Your task to perform on an android device: delete browsing data in the chrome app Image 0: 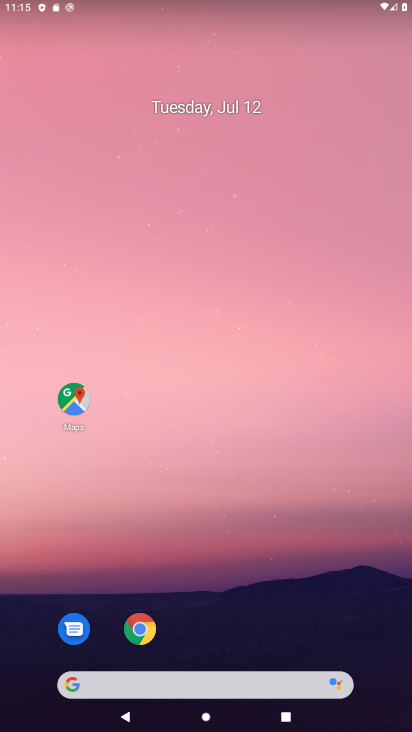
Step 0: click (136, 630)
Your task to perform on an android device: delete browsing data in the chrome app Image 1: 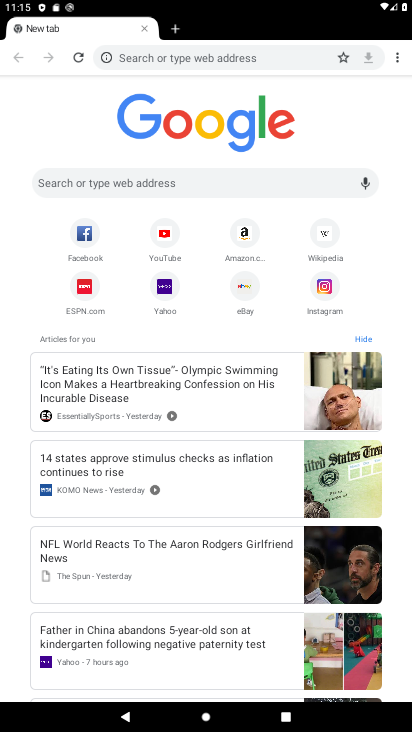
Step 1: click (395, 53)
Your task to perform on an android device: delete browsing data in the chrome app Image 2: 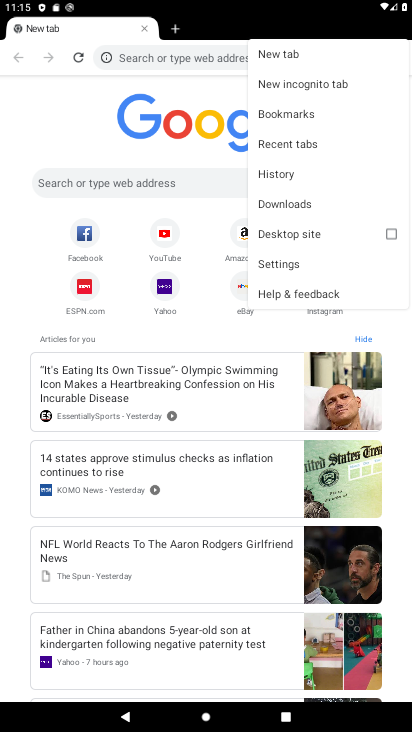
Step 2: click (275, 176)
Your task to perform on an android device: delete browsing data in the chrome app Image 3: 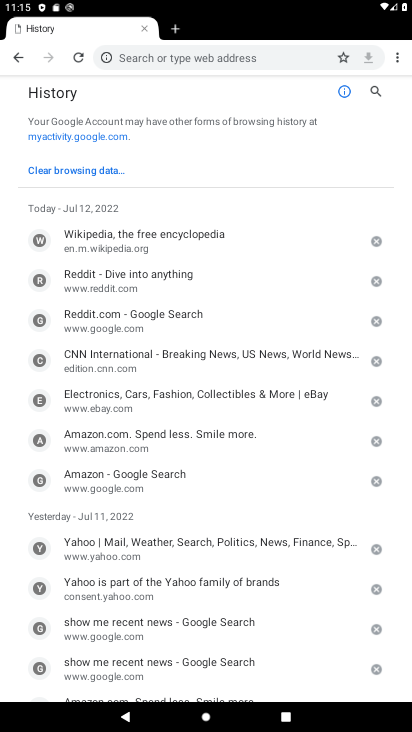
Step 3: click (88, 164)
Your task to perform on an android device: delete browsing data in the chrome app Image 4: 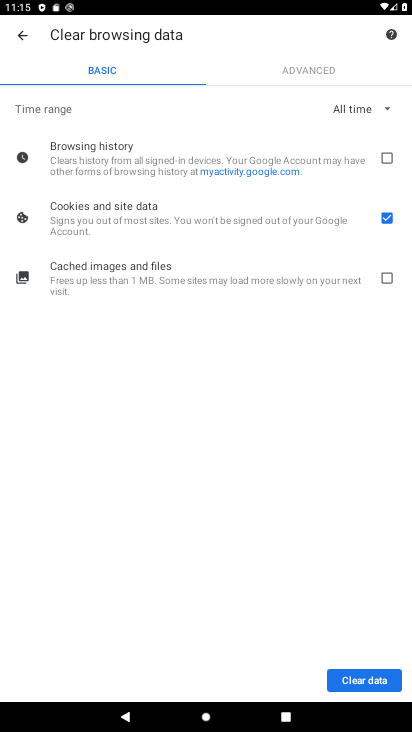
Step 4: click (387, 276)
Your task to perform on an android device: delete browsing data in the chrome app Image 5: 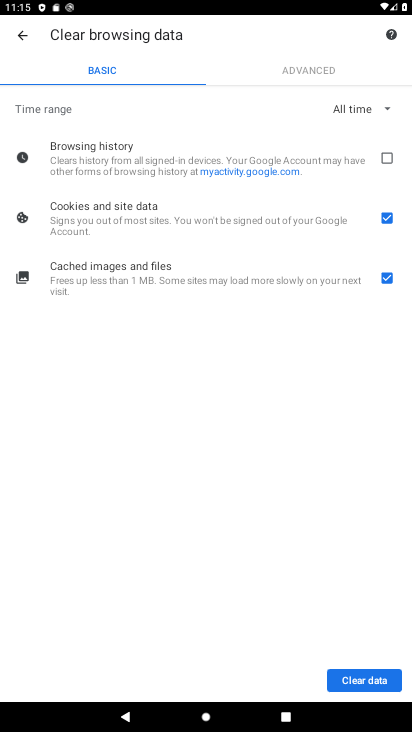
Step 5: click (384, 161)
Your task to perform on an android device: delete browsing data in the chrome app Image 6: 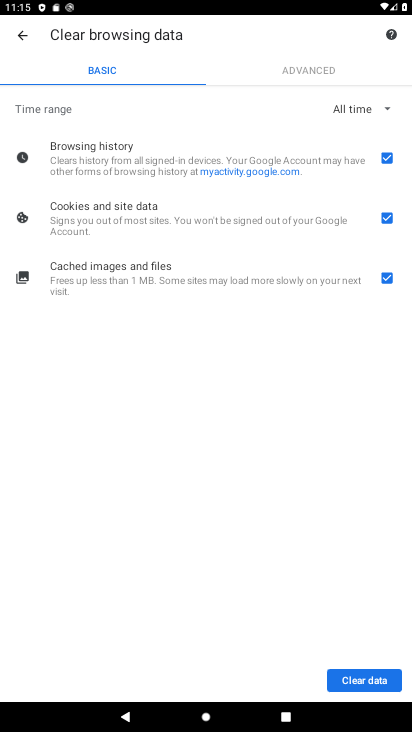
Step 6: click (363, 685)
Your task to perform on an android device: delete browsing data in the chrome app Image 7: 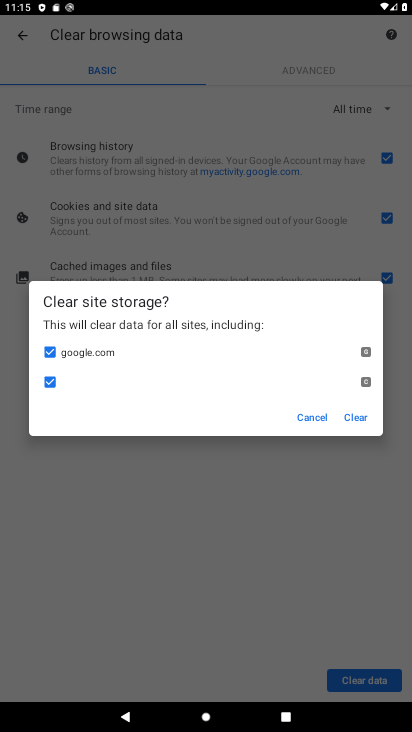
Step 7: click (347, 421)
Your task to perform on an android device: delete browsing data in the chrome app Image 8: 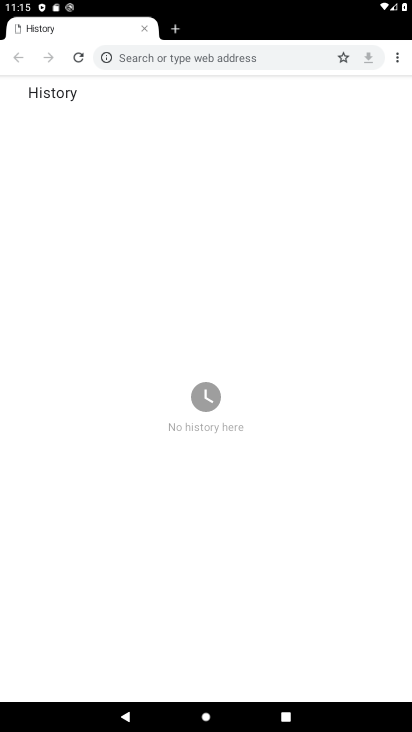
Step 8: task complete